Your task to perform on an android device: toggle wifi Image 0: 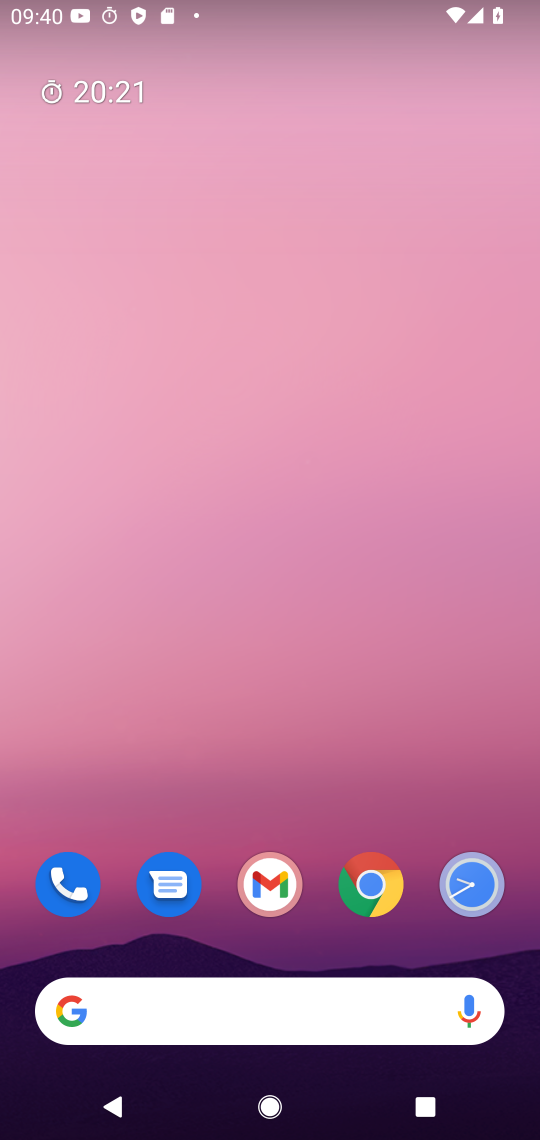
Step 0: drag from (233, 424) to (233, 231)
Your task to perform on an android device: toggle wifi Image 1: 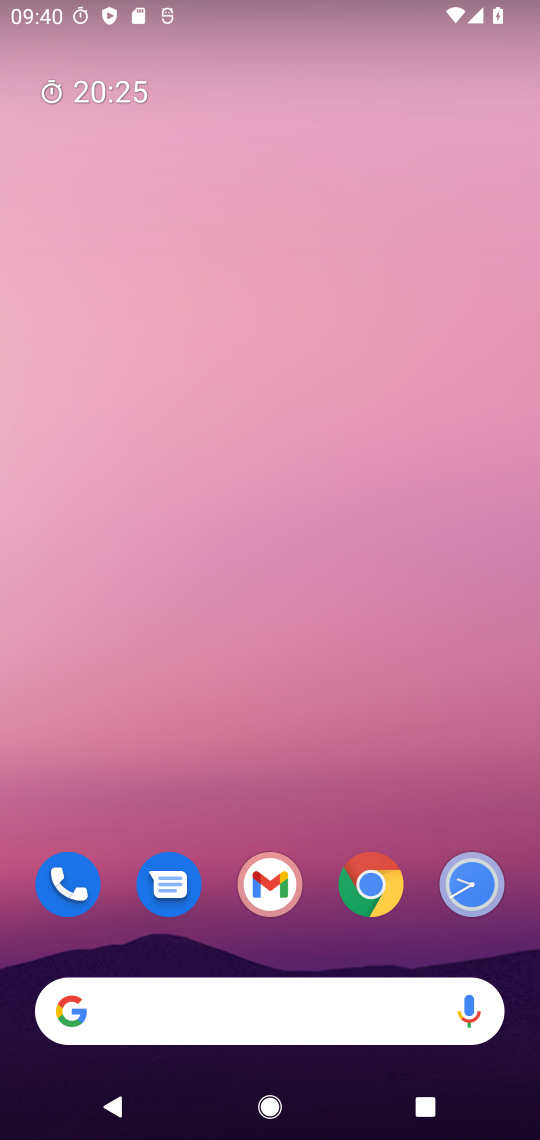
Step 1: drag from (274, 804) to (276, 83)
Your task to perform on an android device: toggle wifi Image 2: 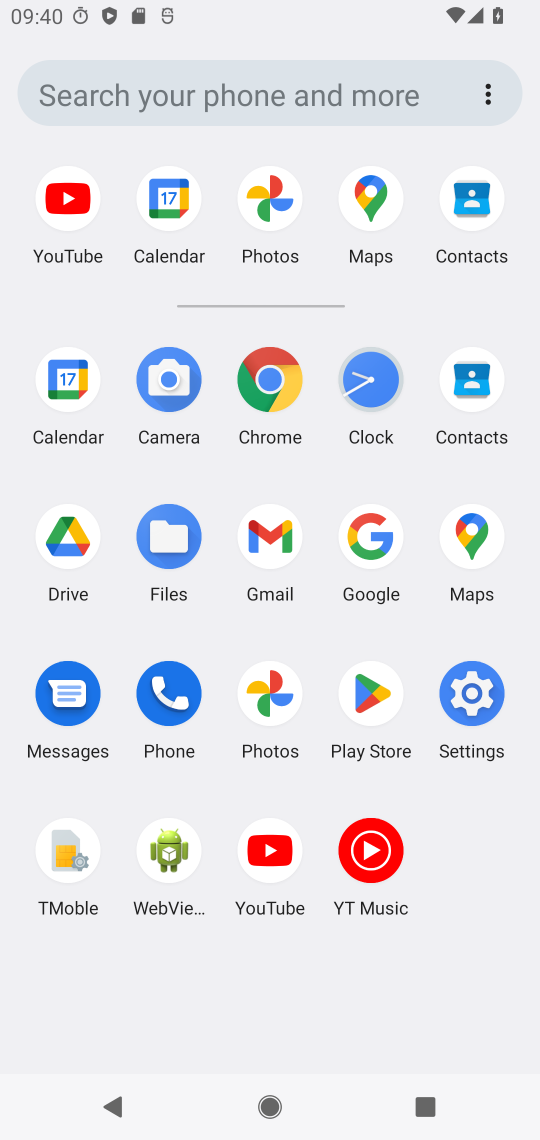
Step 2: click (466, 715)
Your task to perform on an android device: toggle wifi Image 3: 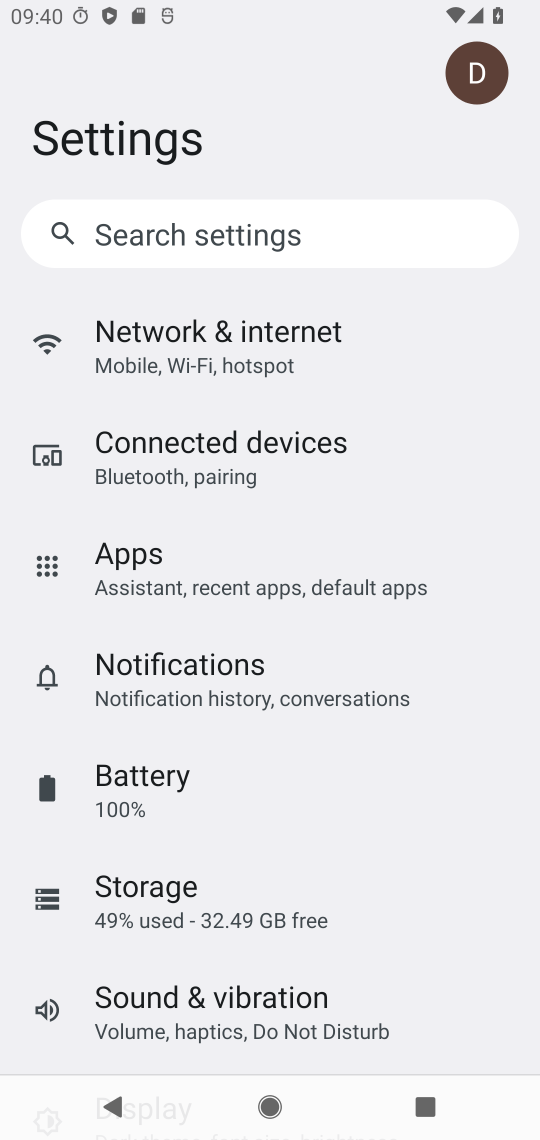
Step 3: click (173, 348)
Your task to perform on an android device: toggle wifi Image 4: 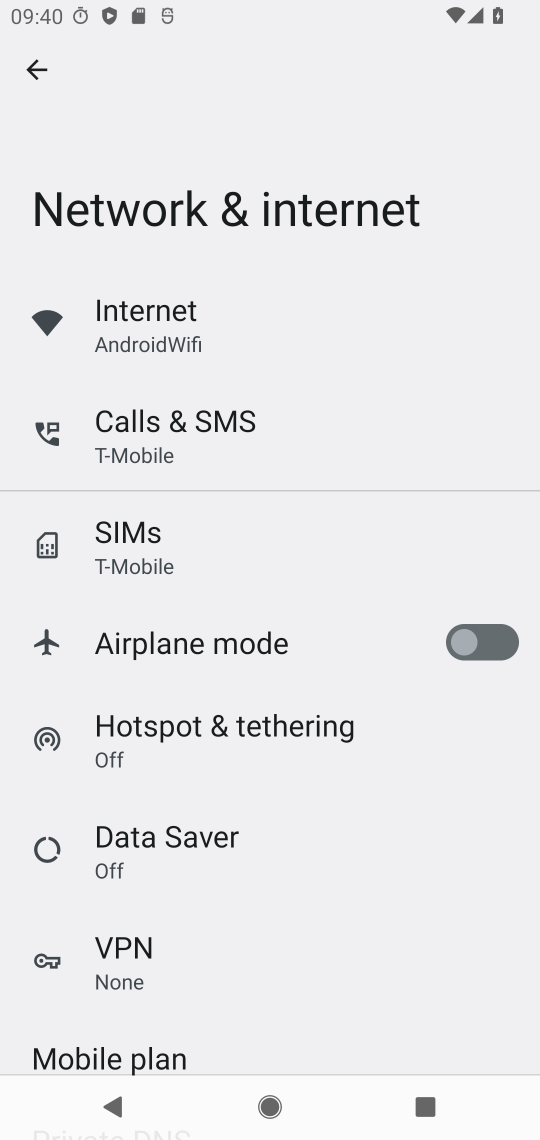
Step 4: click (195, 300)
Your task to perform on an android device: toggle wifi Image 5: 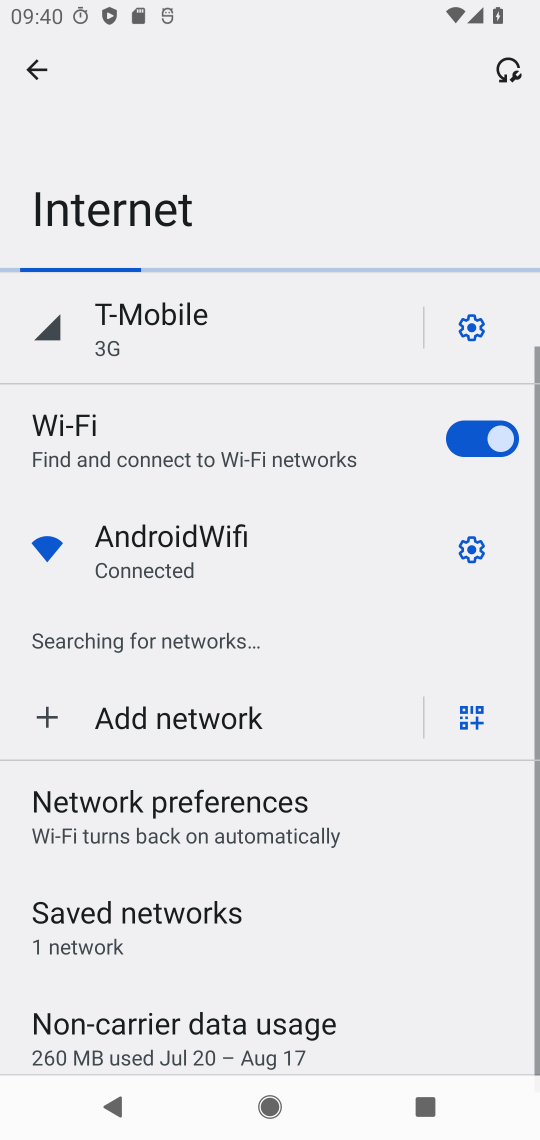
Step 5: click (464, 455)
Your task to perform on an android device: toggle wifi Image 6: 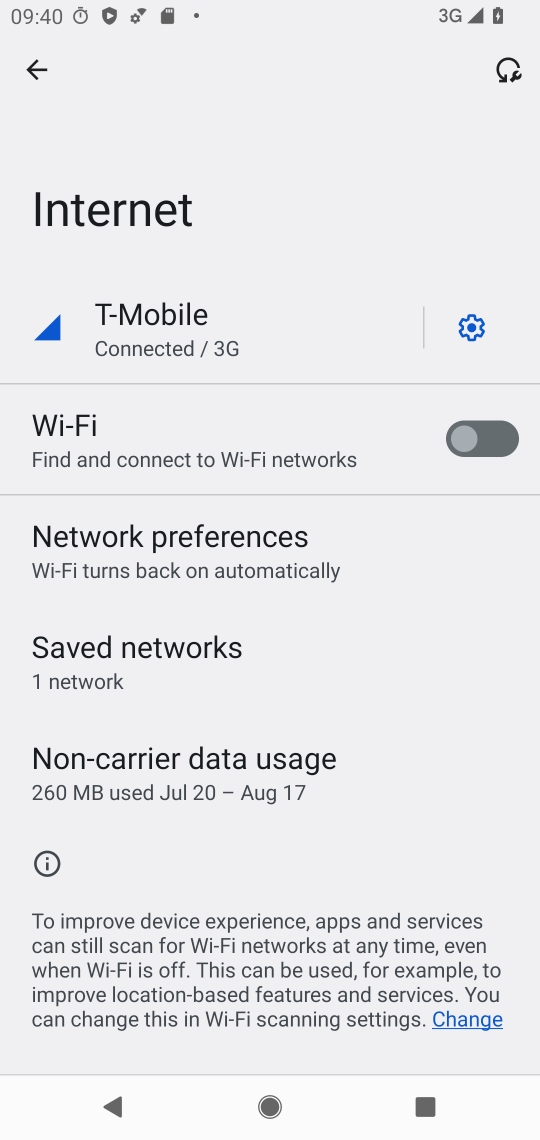
Step 6: task complete